Your task to perform on an android device: add a contact Image 0: 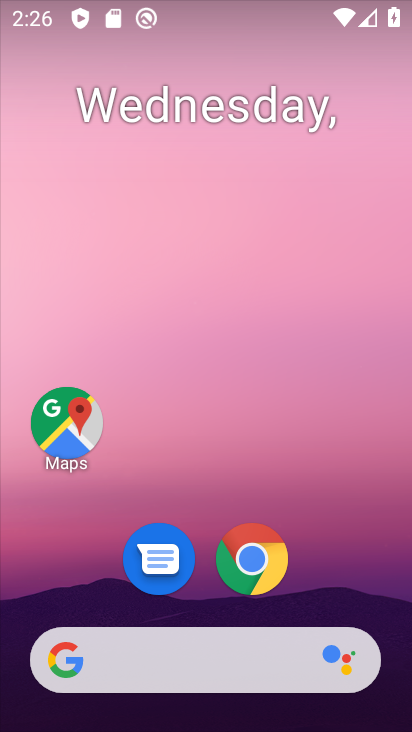
Step 0: drag from (222, 657) to (224, 177)
Your task to perform on an android device: add a contact Image 1: 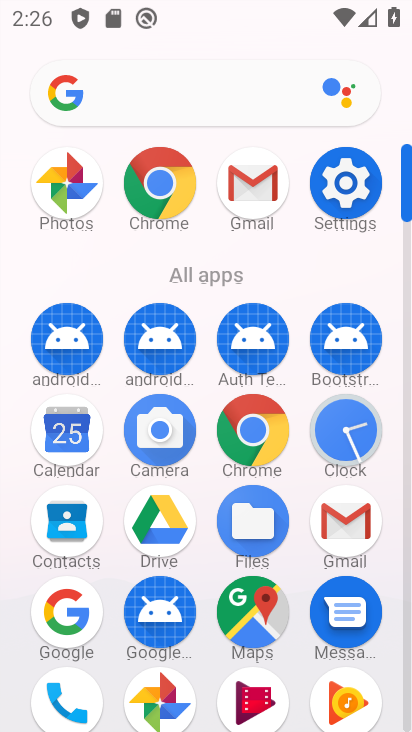
Step 1: click (59, 523)
Your task to perform on an android device: add a contact Image 2: 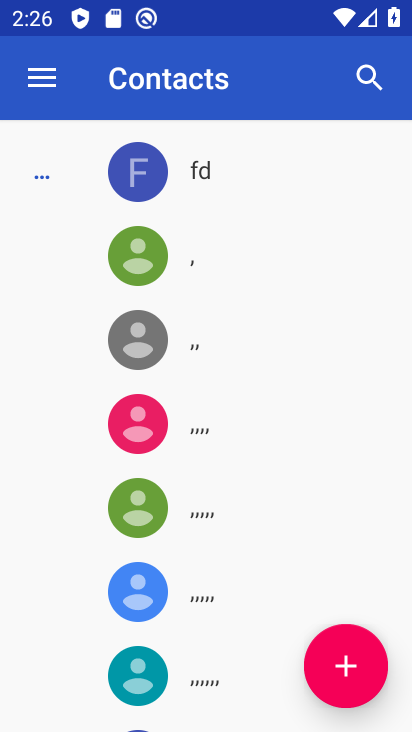
Step 2: click (339, 660)
Your task to perform on an android device: add a contact Image 3: 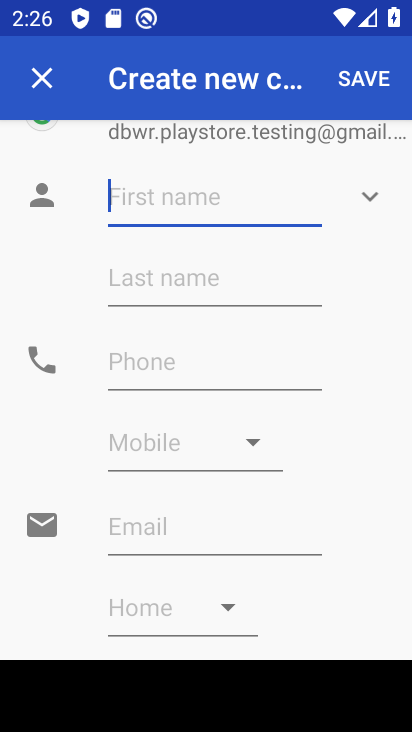
Step 3: type "mukesh"
Your task to perform on an android device: add a contact Image 4: 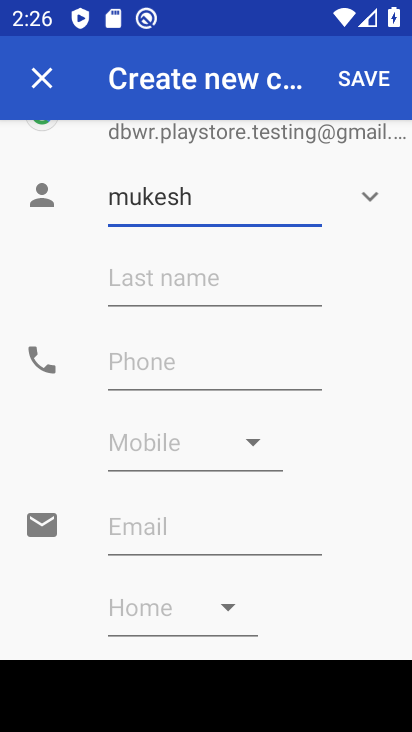
Step 4: click (182, 369)
Your task to perform on an android device: add a contact Image 5: 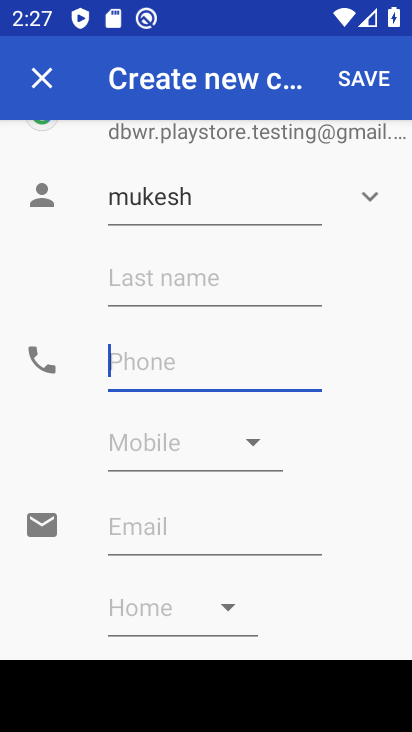
Step 5: type "989977878"
Your task to perform on an android device: add a contact Image 6: 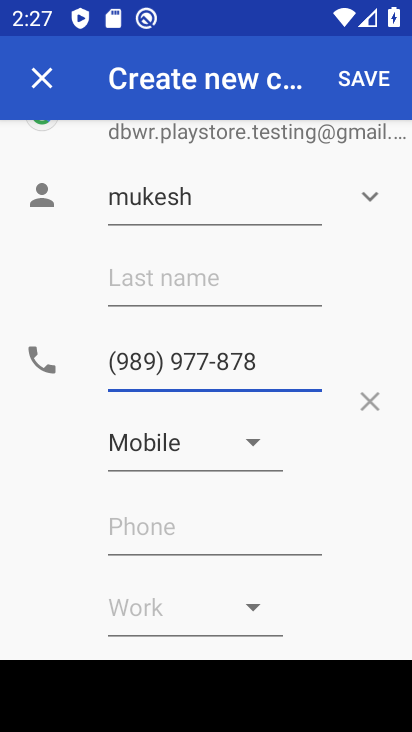
Step 6: click (363, 72)
Your task to perform on an android device: add a contact Image 7: 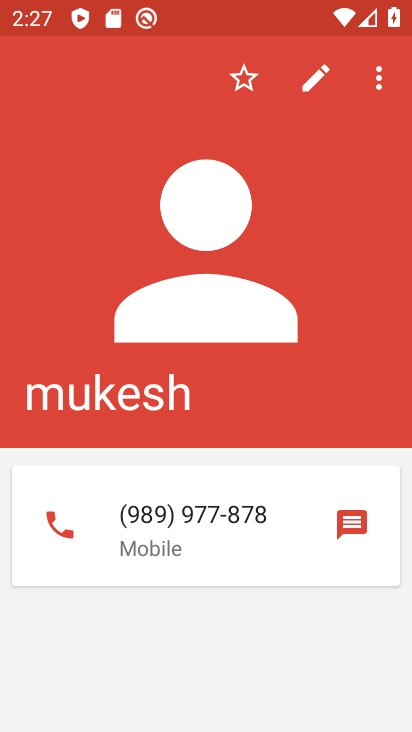
Step 7: task complete